Your task to perform on an android device: turn on showing notifications on the lock screen Image 0: 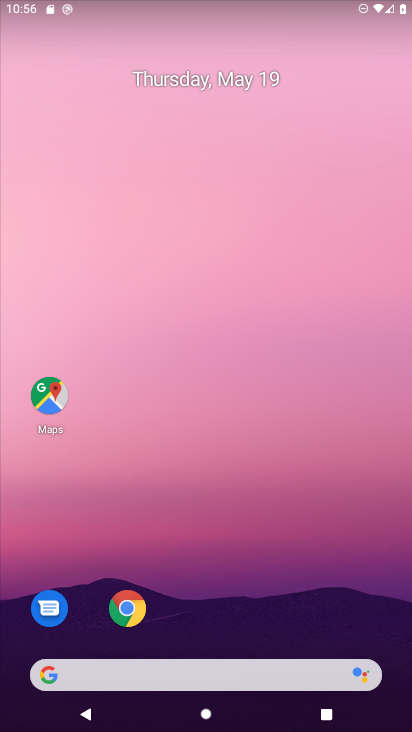
Step 0: drag from (265, 630) to (172, 26)
Your task to perform on an android device: turn on showing notifications on the lock screen Image 1: 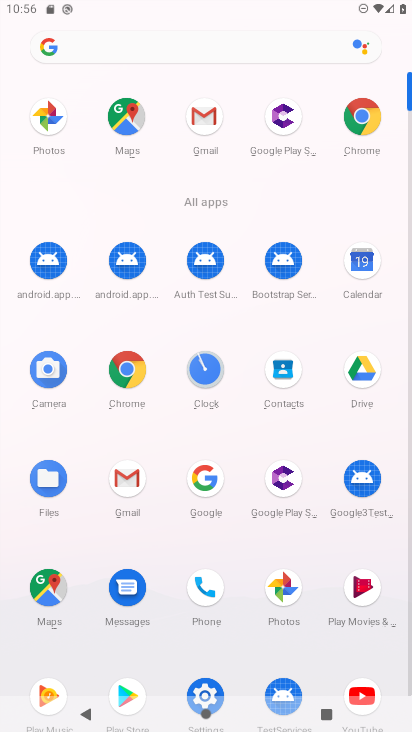
Step 1: click (214, 679)
Your task to perform on an android device: turn on showing notifications on the lock screen Image 2: 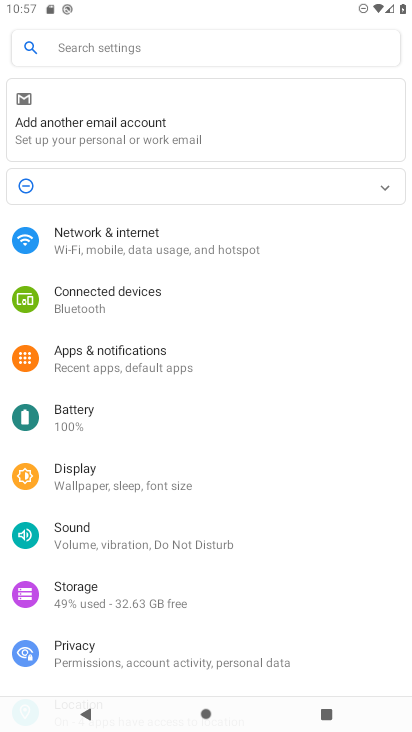
Step 2: click (126, 365)
Your task to perform on an android device: turn on showing notifications on the lock screen Image 3: 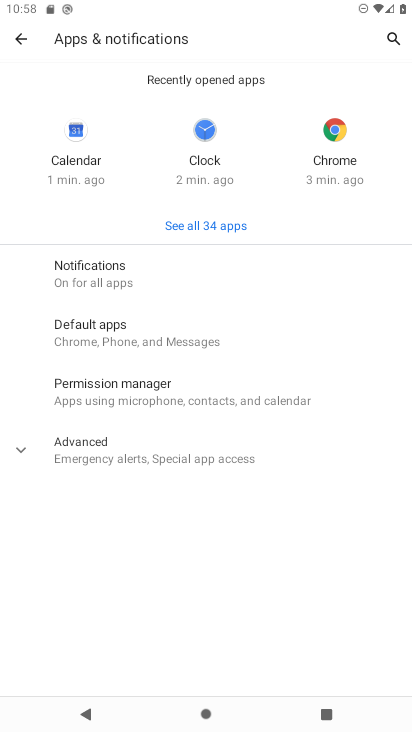
Step 3: click (126, 282)
Your task to perform on an android device: turn on showing notifications on the lock screen Image 4: 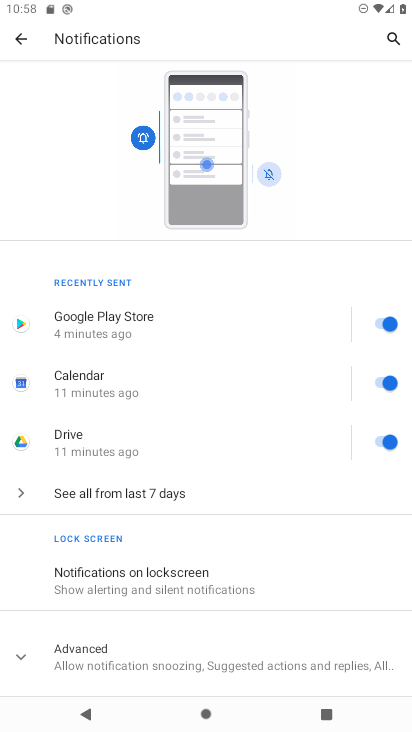
Step 4: click (115, 661)
Your task to perform on an android device: turn on showing notifications on the lock screen Image 5: 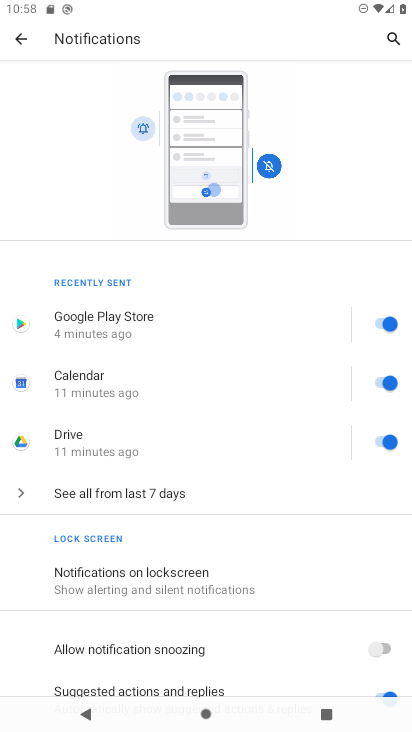
Step 5: click (120, 577)
Your task to perform on an android device: turn on showing notifications on the lock screen Image 6: 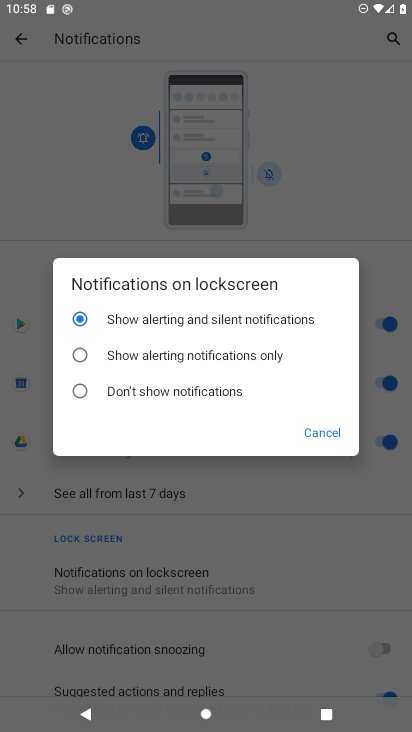
Step 6: click (196, 358)
Your task to perform on an android device: turn on showing notifications on the lock screen Image 7: 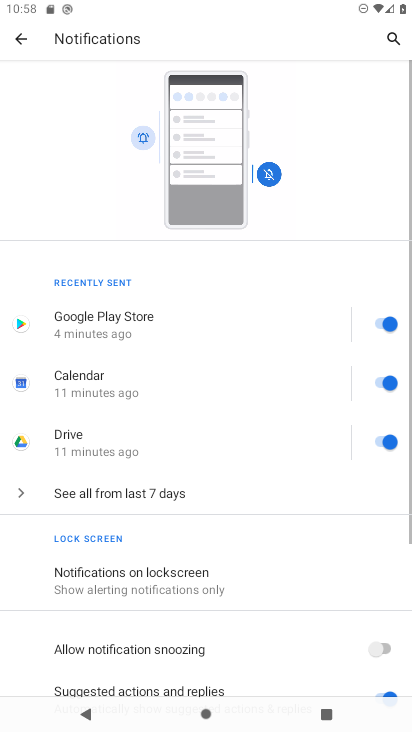
Step 7: task complete